Your task to perform on an android device: change the clock style Image 0: 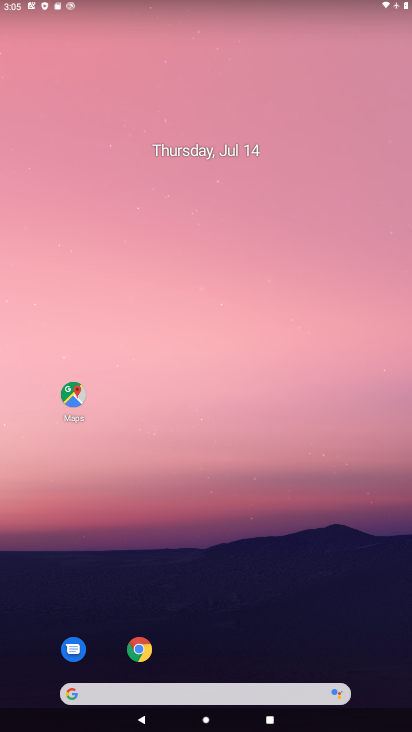
Step 0: drag from (247, 654) to (239, 234)
Your task to perform on an android device: change the clock style Image 1: 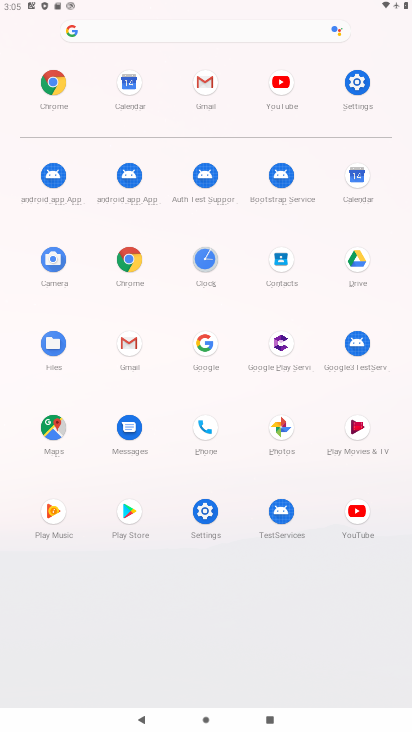
Step 1: click (205, 261)
Your task to perform on an android device: change the clock style Image 2: 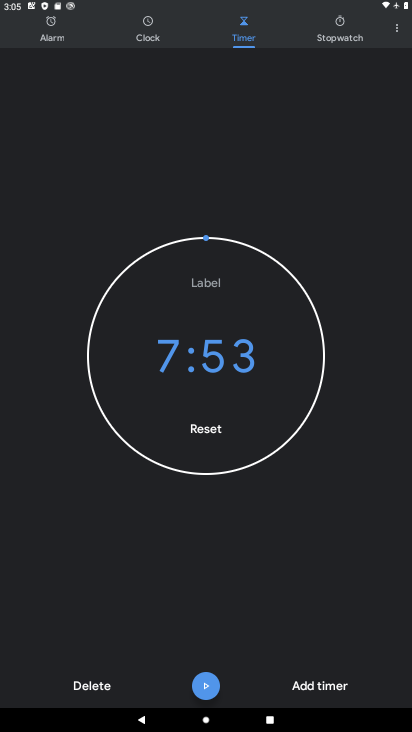
Step 2: click (399, 31)
Your task to perform on an android device: change the clock style Image 3: 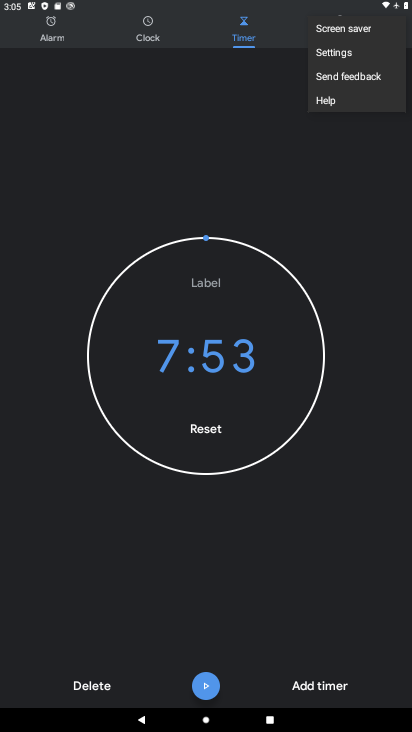
Step 3: click (350, 55)
Your task to perform on an android device: change the clock style Image 4: 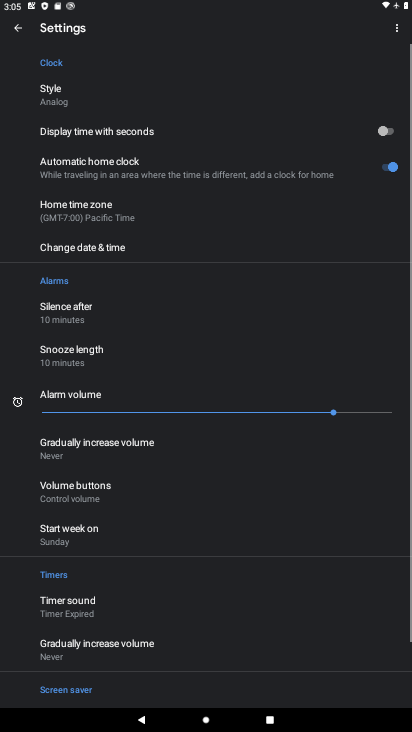
Step 4: click (58, 98)
Your task to perform on an android device: change the clock style Image 5: 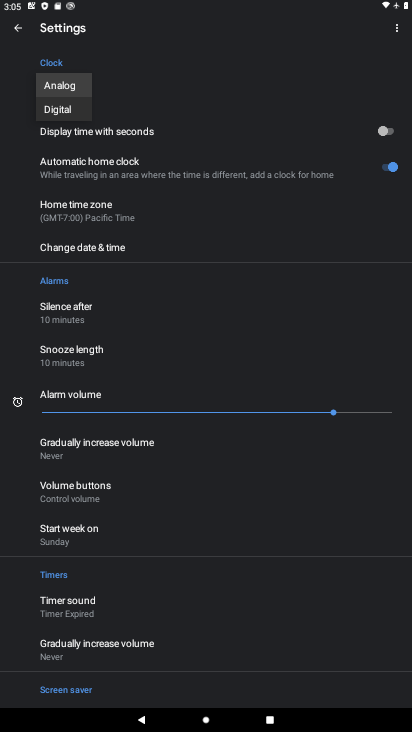
Step 5: click (68, 111)
Your task to perform on an android device: change the clock style Image 6: 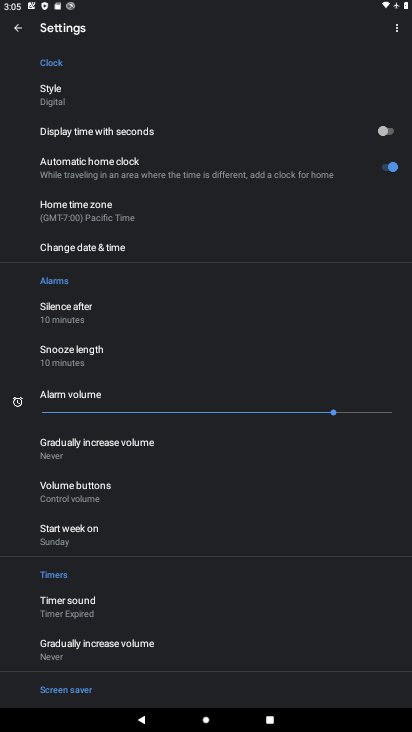
Step 6: task complete